Your task to perform on an android device: open app "Google Find My Device" Image 0: 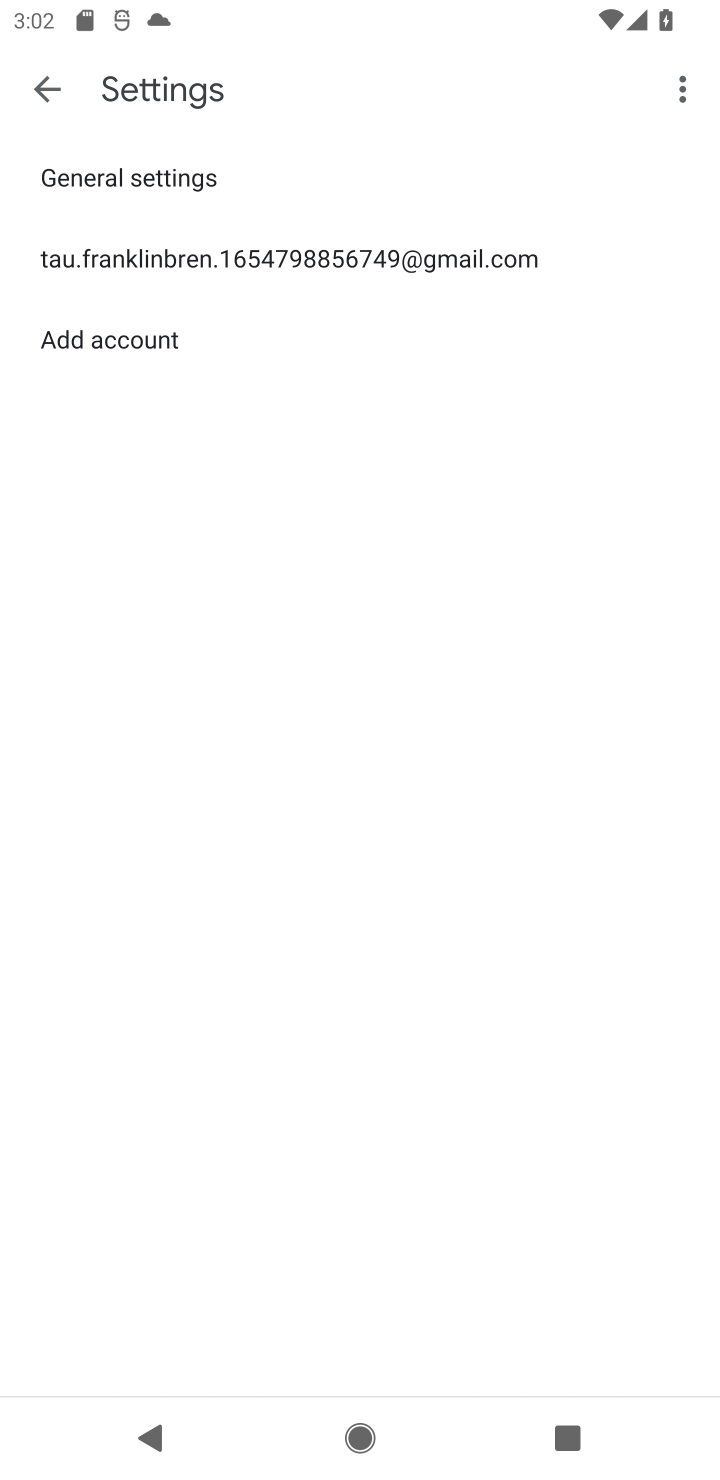
Step 0: press home button
Your task to perform on an android device: open app "Google Find My Device" Image 1: 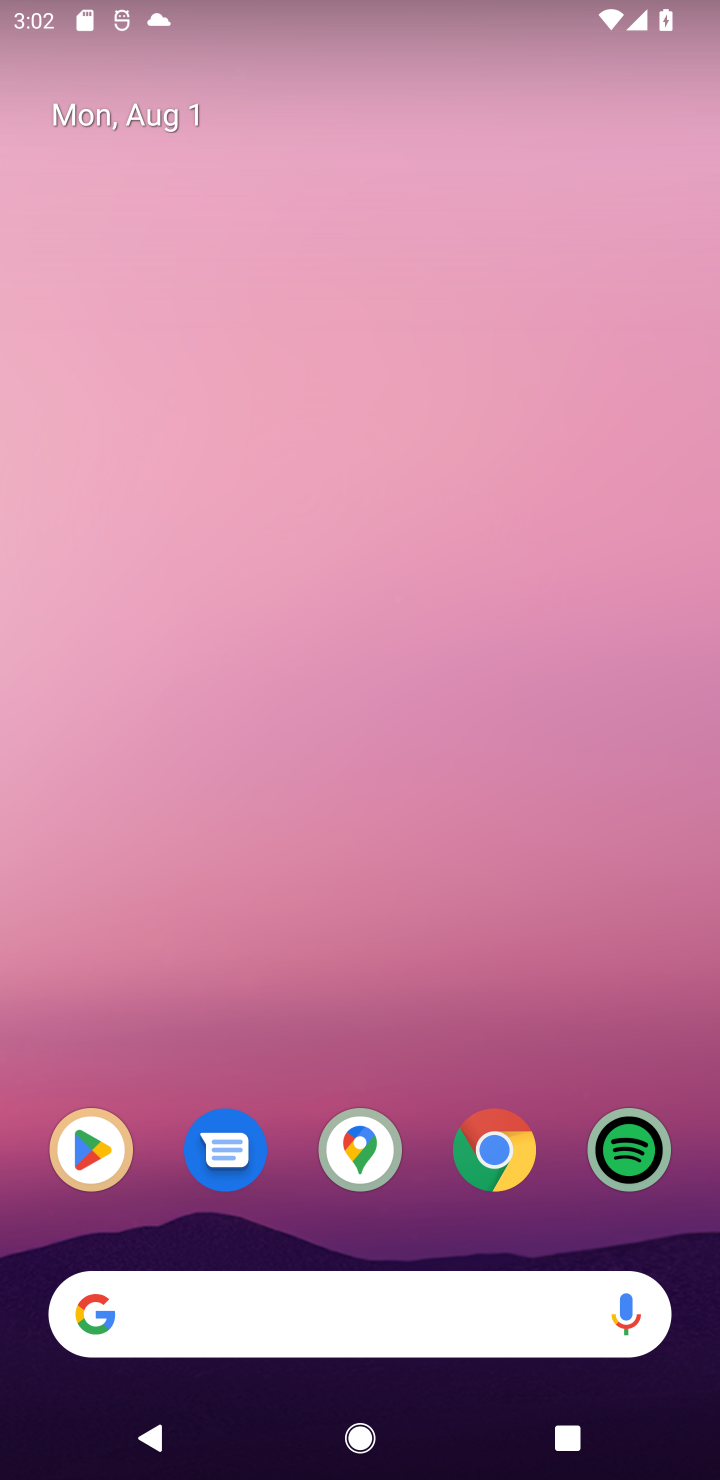
Step 1: click (89, 1167)
Your task to perform on an android device: open app "Google Find My Device" Image 2: 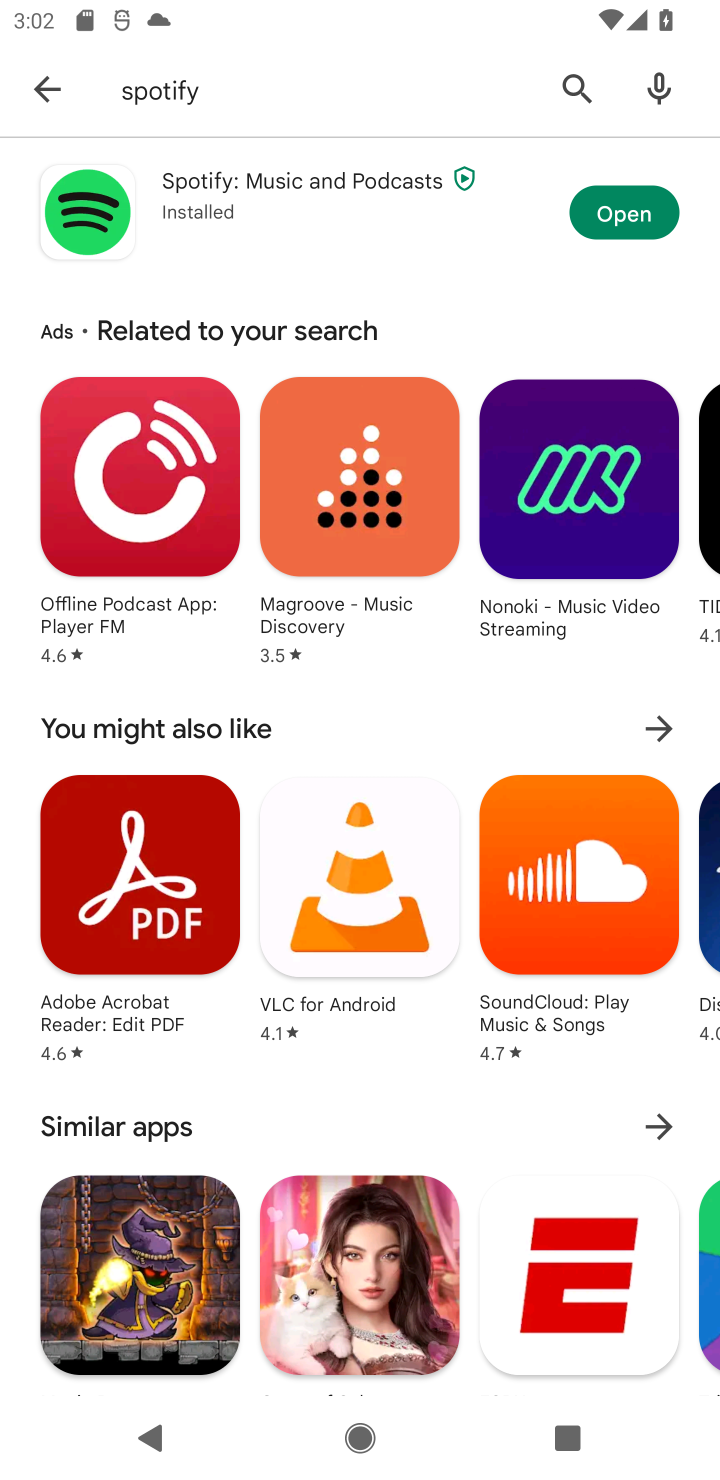
Step 2: click (579, 86)
Your task to perform on an android device: open app "Google Find My Device" Image 3: 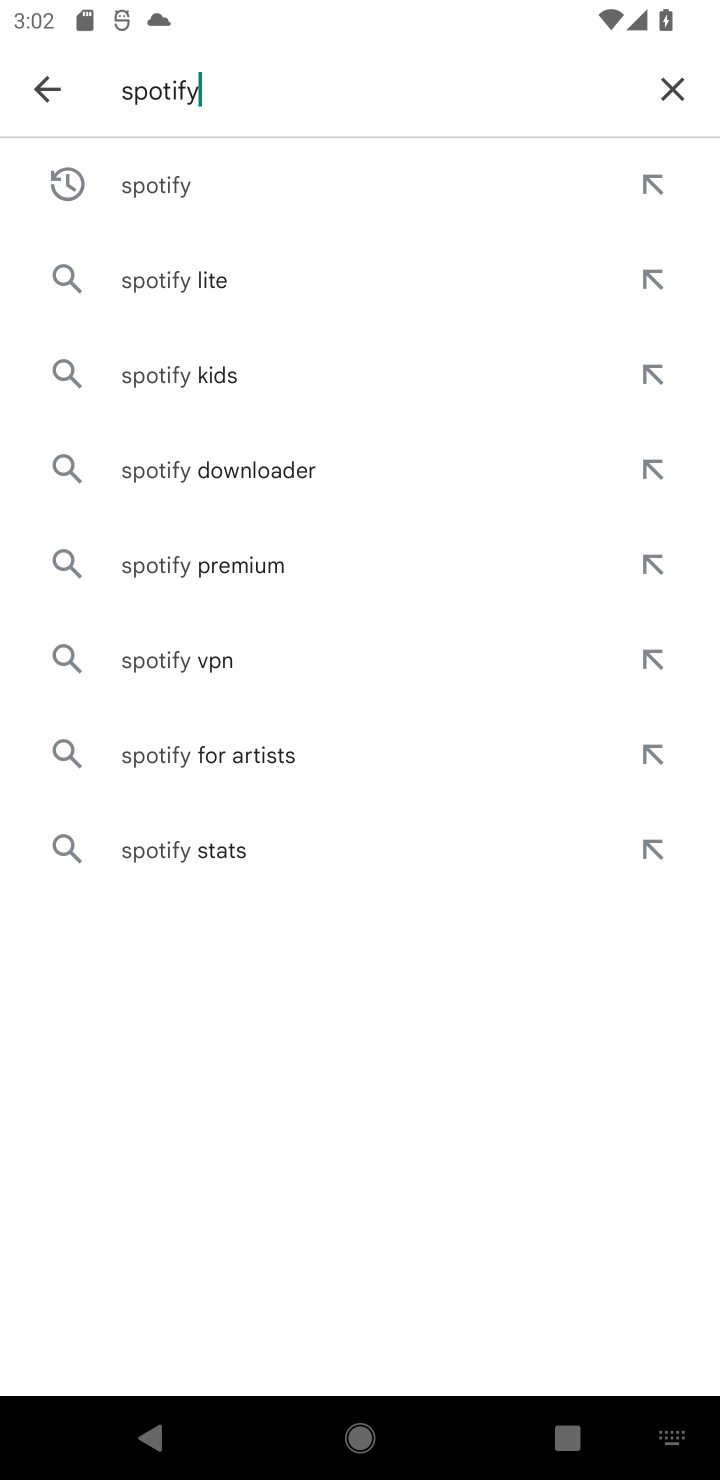
Step 3: click (670, 86)
Your task to perform on an android device: open app "Google Find My Device" Image 4: 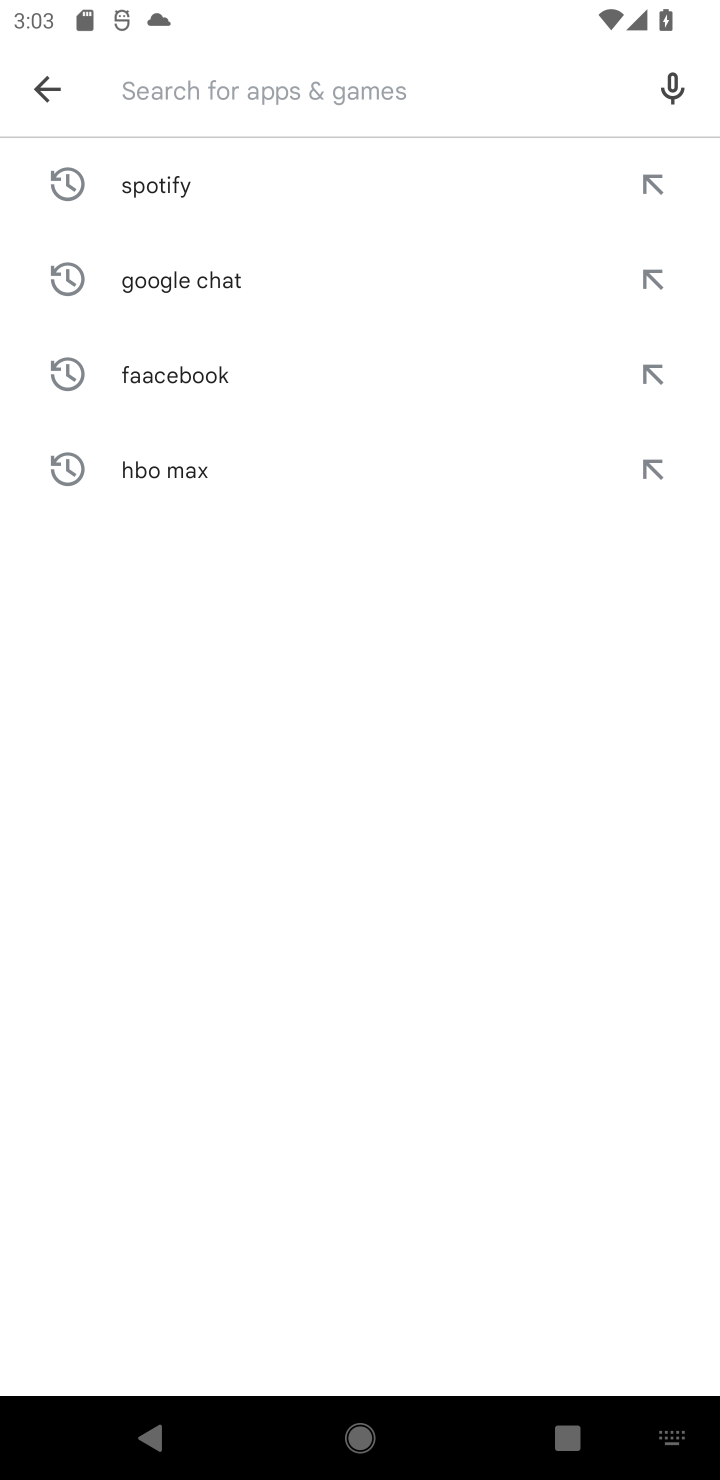
Step 4: type "google find my divice"
Your task to perform on an android device: open app "Google Find My Device" Image 5: 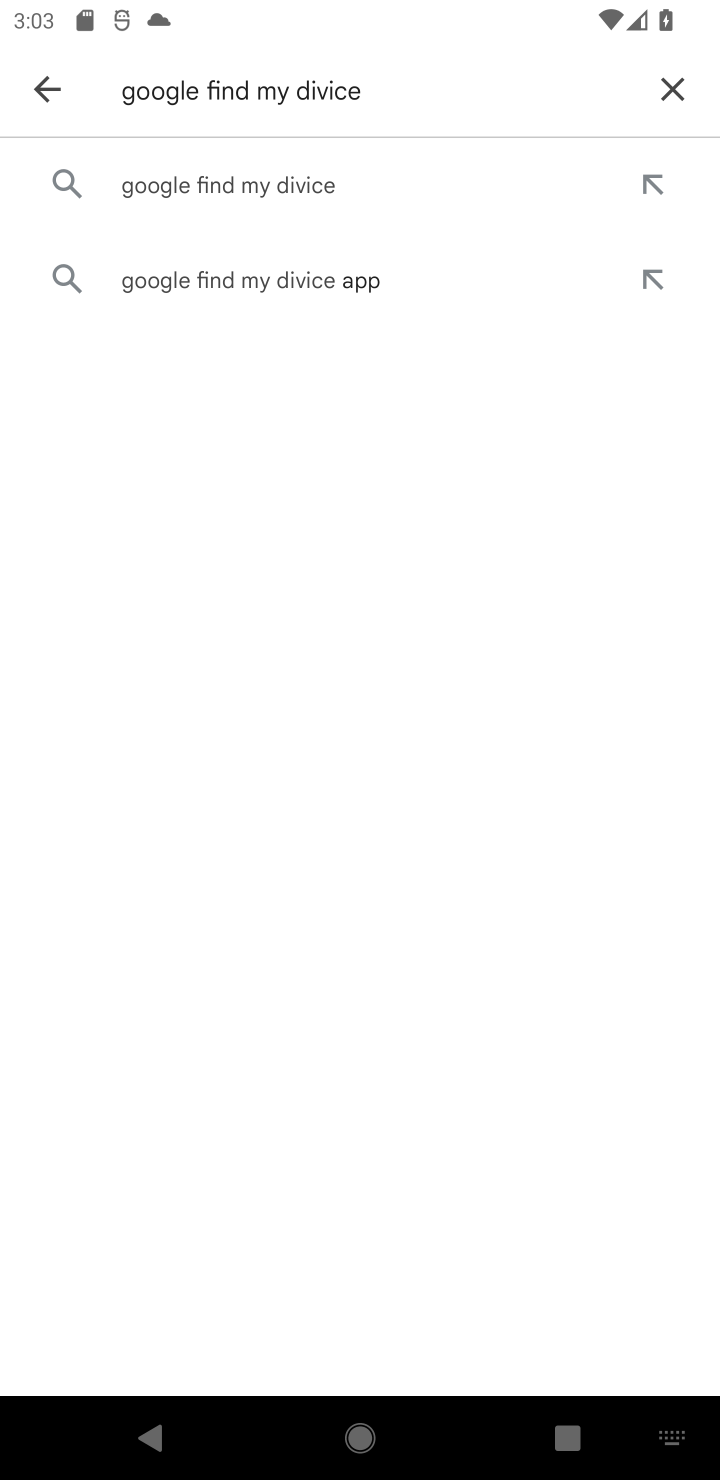
Step 5: click (433, 203)
Your task to perform on an android device: open app "Google Find My Device" Image 6: 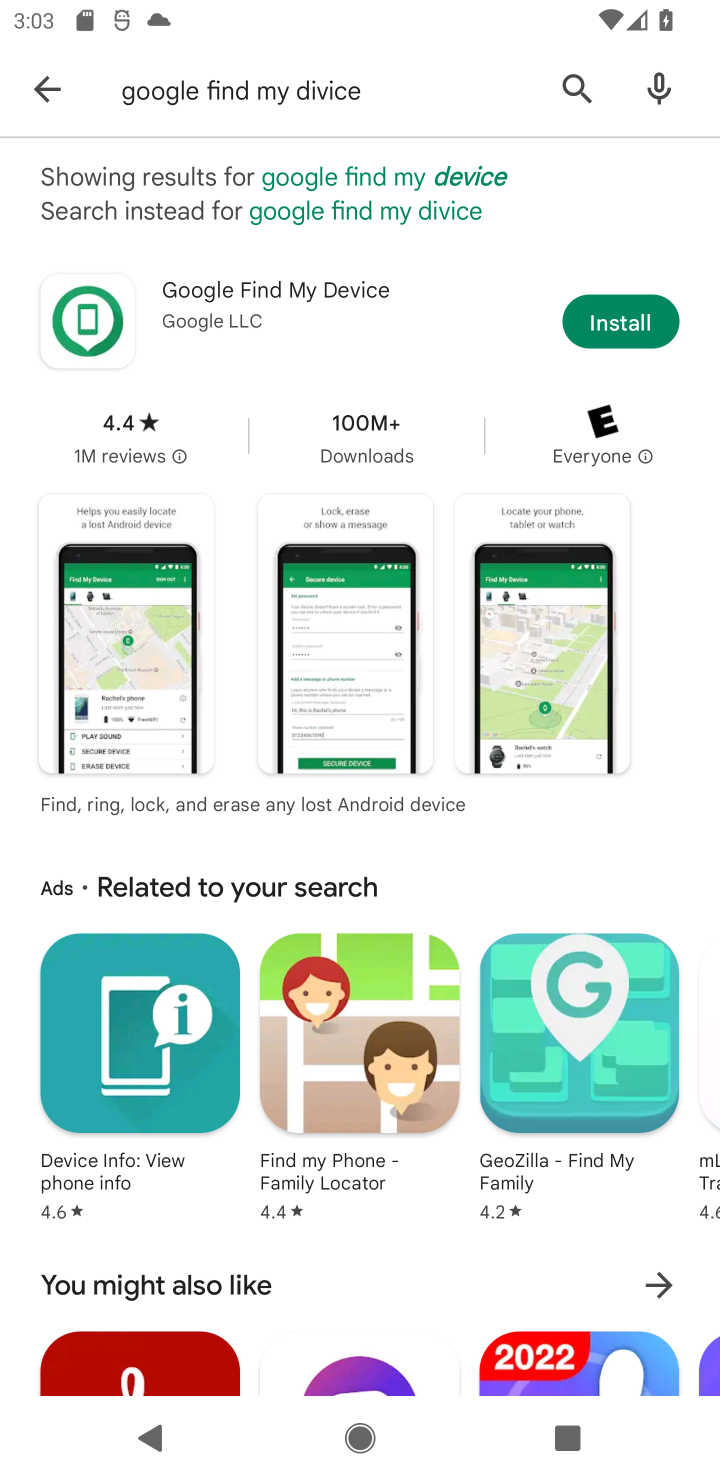
Step 6: click (584, 328)
Your task to perform on an android device: open app "Google Find My Device" Image 7: 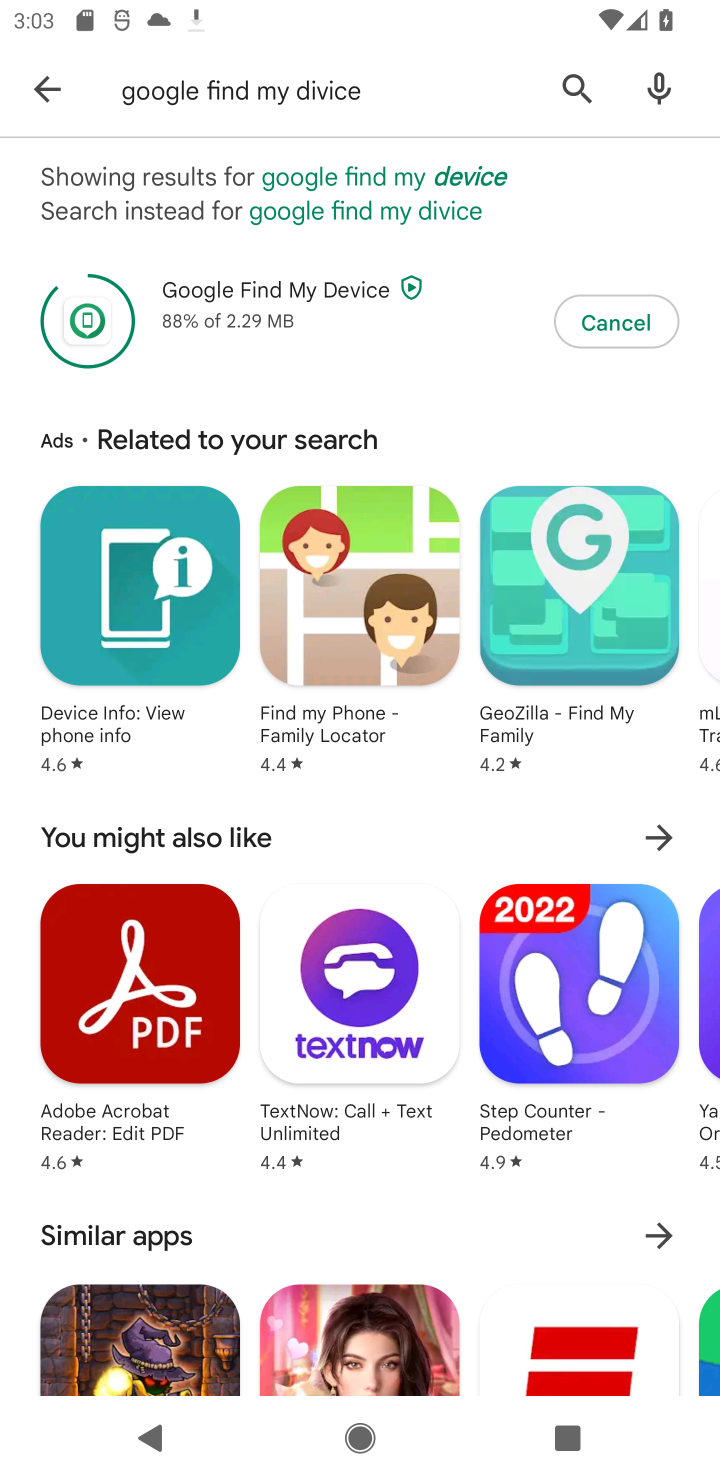
Step 7: task complete